Your task to perform on an android device: Go to Amazon Image 0: 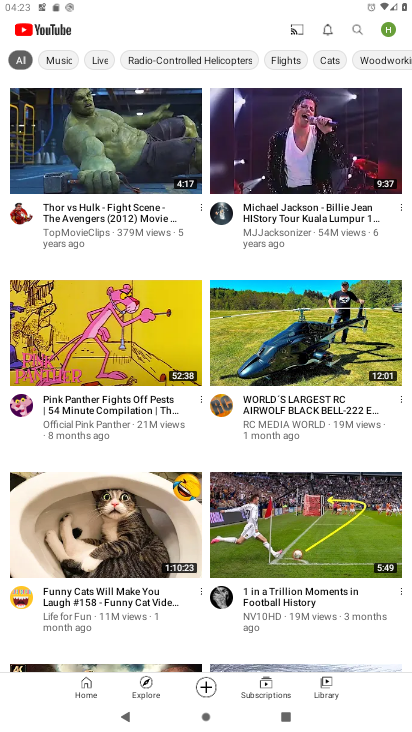
Step 0: press home button
Your task to perform on an android device: Go to Amazon Image 1: 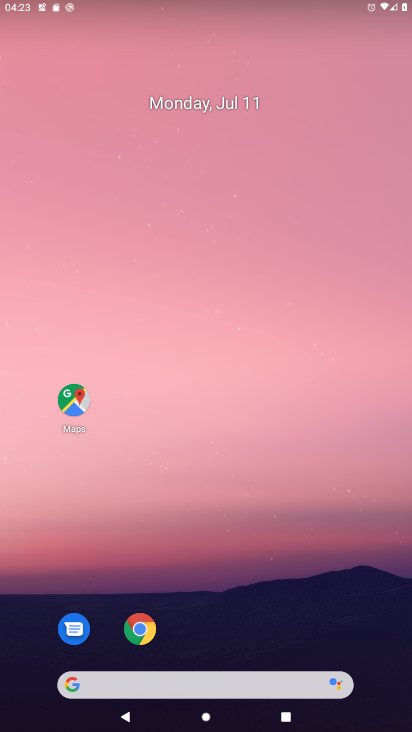
Step 1: drag from (242, 620) to (301, 31)
Your task to perform on an android device: Go to Amazon Image 2: 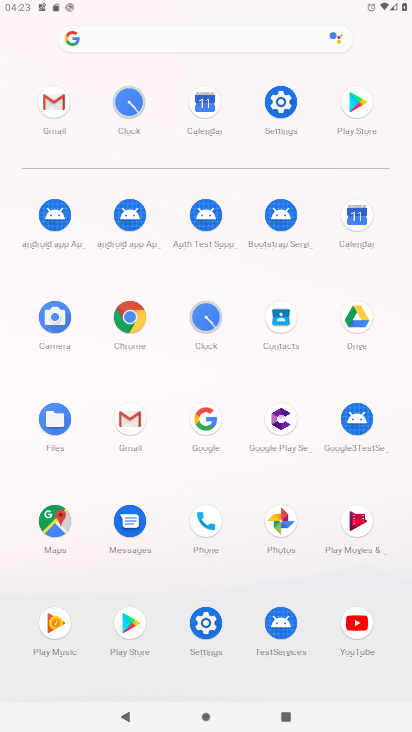
Step 2: click (127, 317)
Your task to perform on an android device: Go to Amazon Image 3: 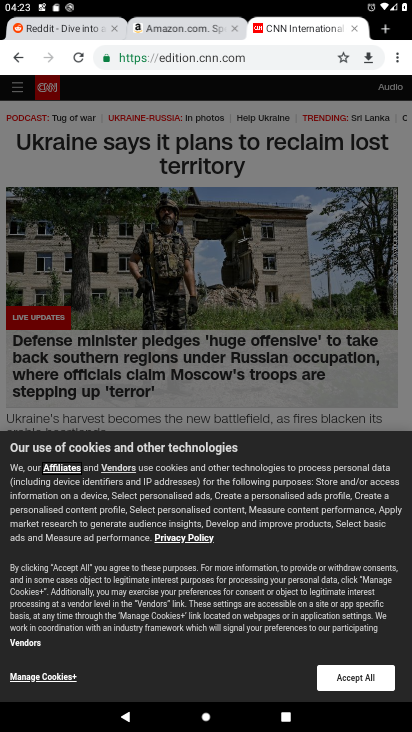
Step 3: click (178, 25)
Your task to perform on an android device: Go to Amazon Image 4: 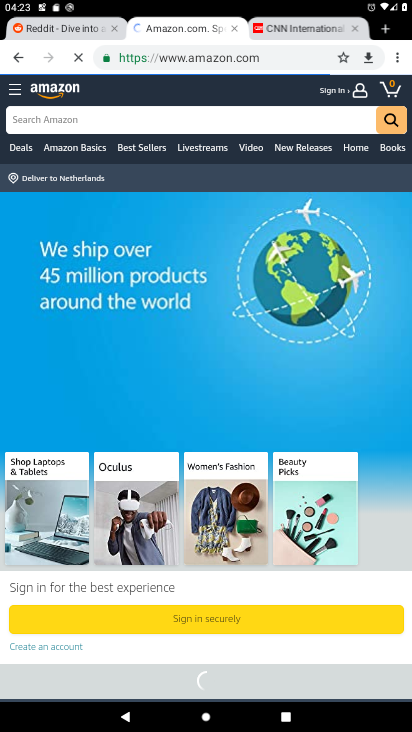
Step 4: task complete